Your task to perform on an android device: turn off improve location accuracy Image 0: 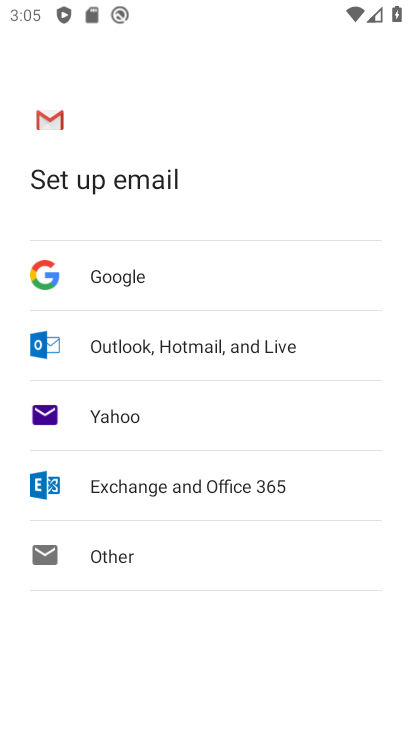
Step 0: press home button
Your task to perform on an android device: turn off improve location accuracy Image 1: 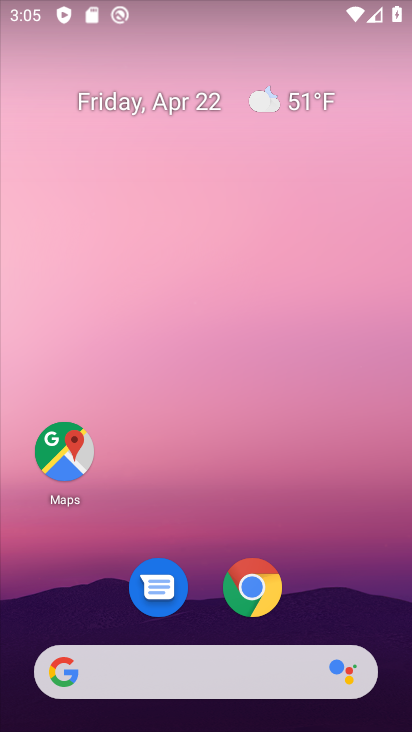
Step 1: drag from (84, 520) to (309, 159)
Your task to perform on an android device: turn off improve location accuracy Image 2: 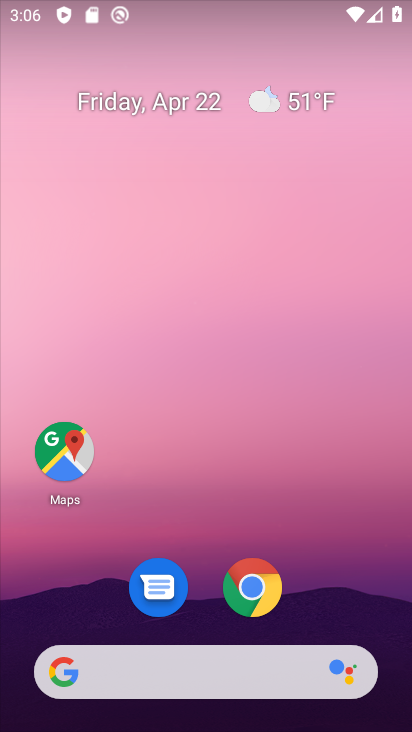
Step 2: drag from (77, 561) to (249, 207)
Your task to perform on an android device: turn off improve location accuracy Image 3: 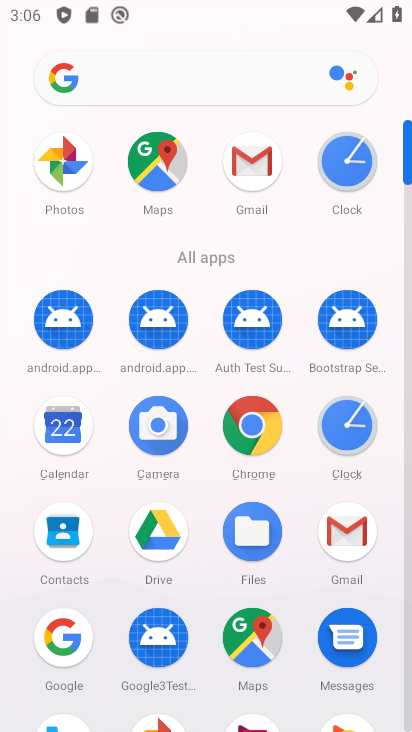
Step 3: drag from (13, 587) to (162, 233)
Your task to perform on an android device: turn off improve location accuracy Image 4: 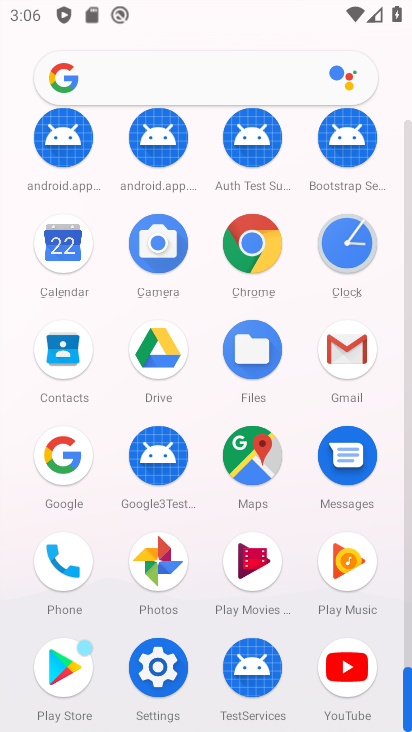
Step 4: click (146, 670)
Your task to perform on an android device: turn off improve location accuracy Image 5: 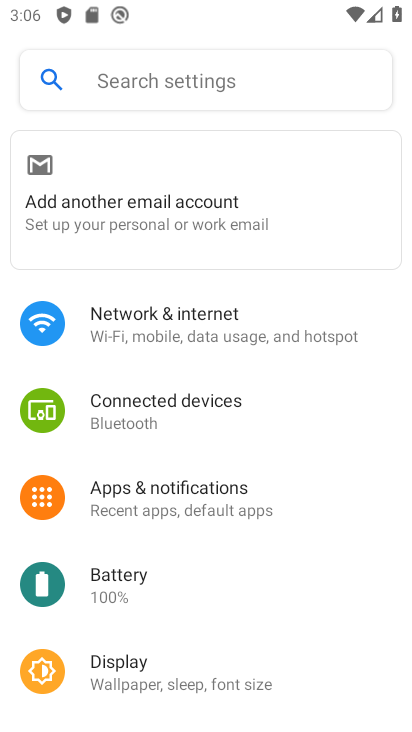
Step 5: drag from (46, 655) to (232, 252)
Your task to perform on an android device: turn off improve location accuracy Image 6: 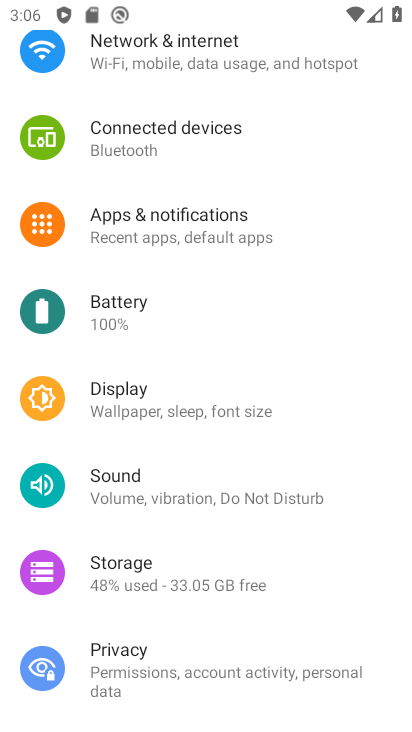
Step 6: drag from (120, 678) to (233, 287)
Your task to perform on an android device: turn off improve location accuracy Image 7: 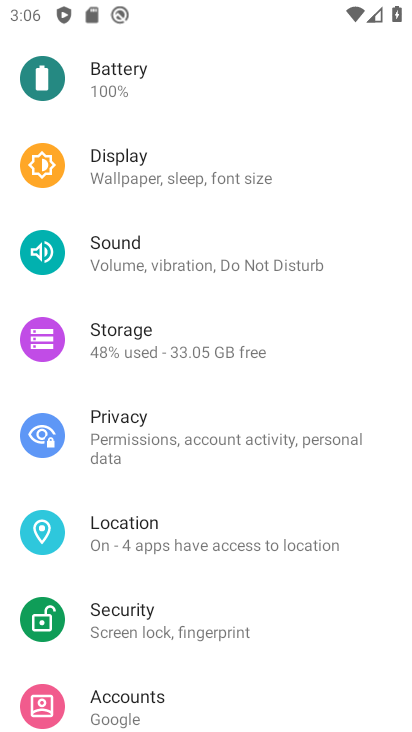
Step 7: click (161, 520)
Your task to perform on an android device: turn off improve location accuracy Image 8: 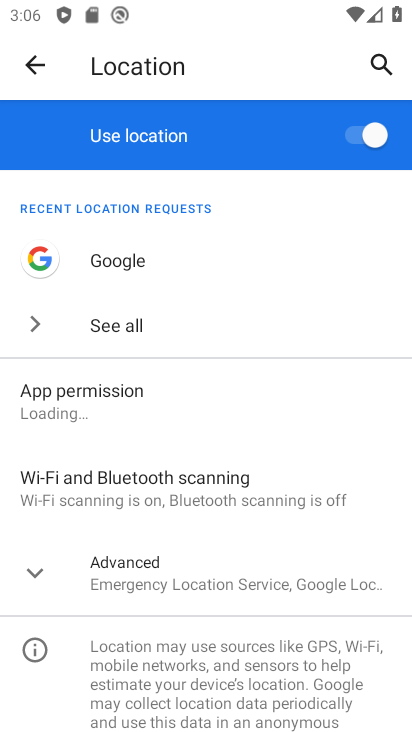
Step 8: click (136, 572)
Your task to perform on an android device: turn off improve location accuracy Image 9: 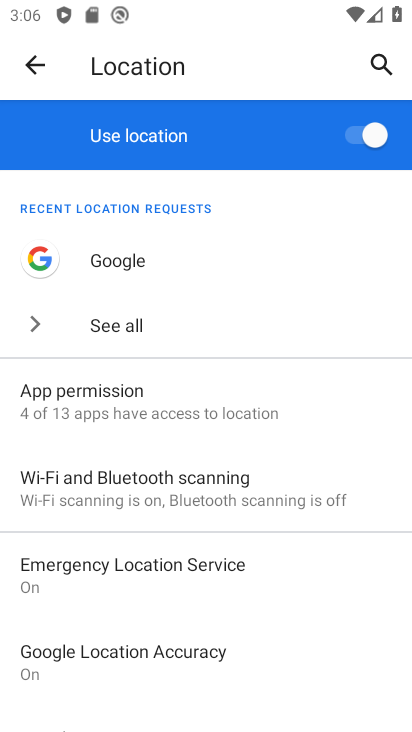
Step 9: click (133, 655)
Your task to perform on an android device: turn off improve location accuracy Image 10: 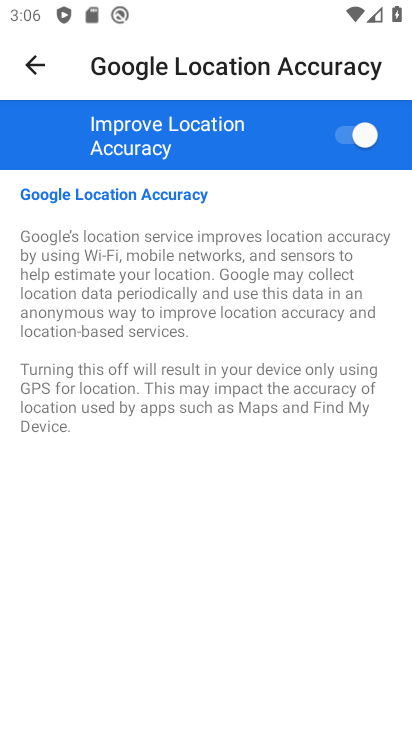
Step 10: click (358, 139)
Your task to perform on an android device: turn off improve location accuracy Image 11: 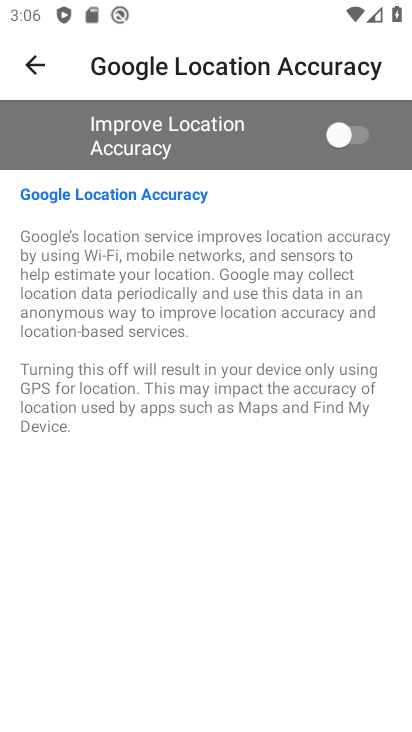
Step 11: task complete